Your task to perform on an android device: toggle pop-ups in chrome Image 0: 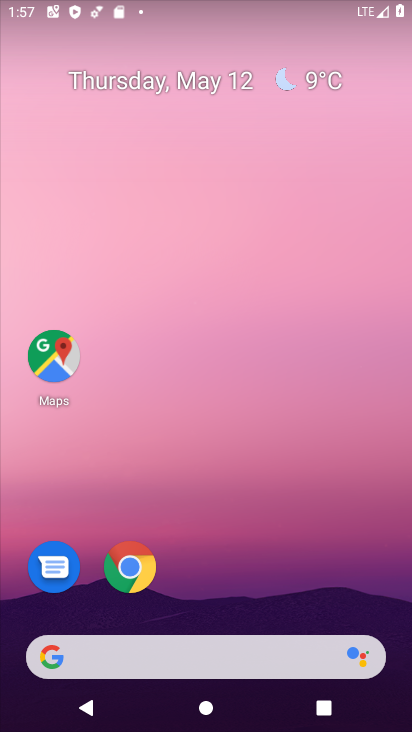
Step 0: click (138, 566)
Your task to perform on an android device: toggle pop-ups in chrome Image 1: 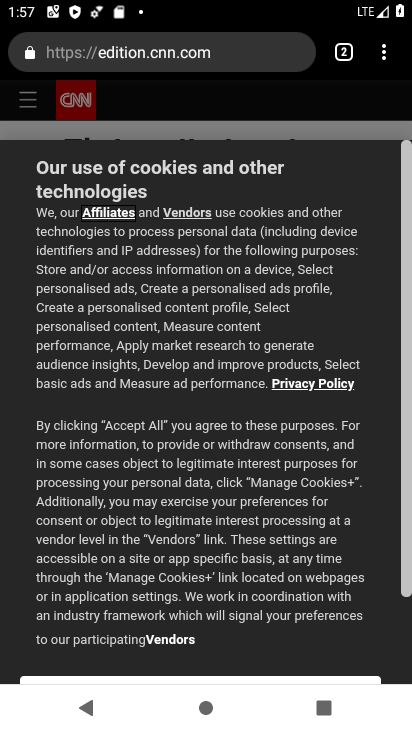
Step 1: click (387, 57)
Your task to perform on an android device: toggle pop-ups in chrome Image 2: 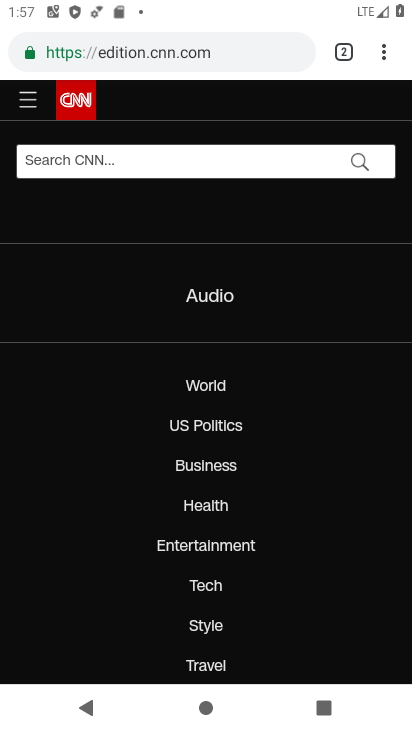
Step 2: click (387, 57)
Your task to perform on an android device: toggle pop-ups in chrome Image 3: 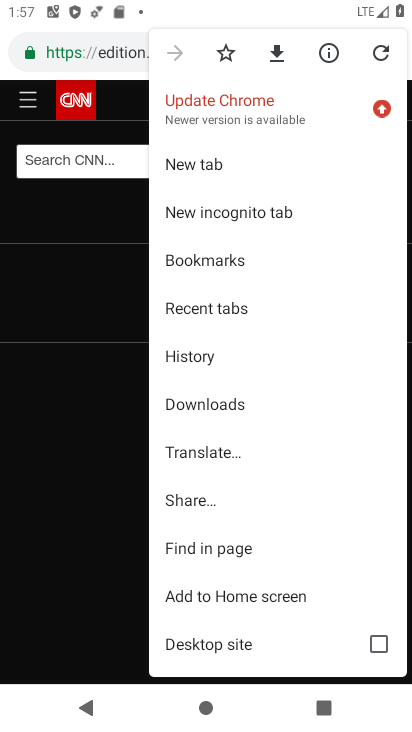
Step 3: drag from (255, 618) to (275, 282)
Your task to perform on an android device: toggle pop-ups in chrome Image 4: 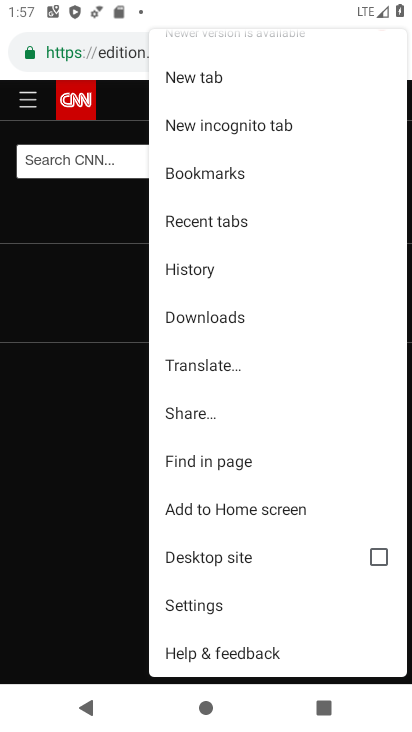
Step 4: drag from (245, 345) to (234, 607)
Your task to perform on an android device: toggle pop-ups in chrome Image 5: 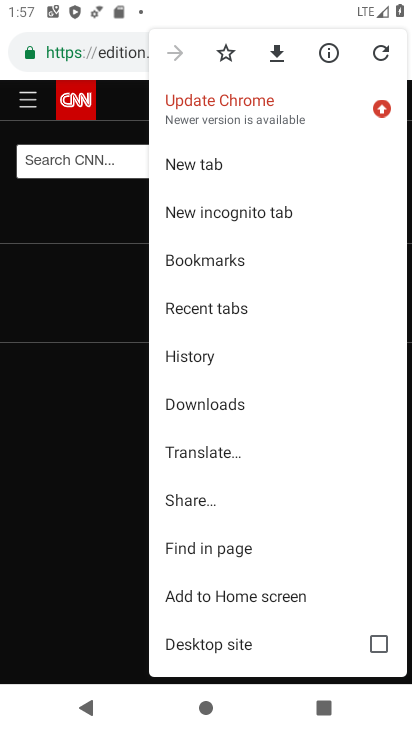
Step 5: drag from (225, 615) to (265, 246)
Your task to perform on an android device: toggle pop-ups in chrome Image 6: 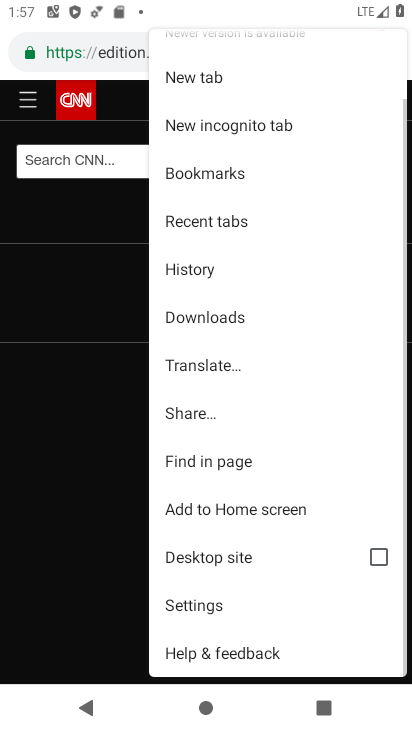
Step 6: click (208, 596)
Your task to perform on an android device: toggle pop-ups in chrome Image 7: 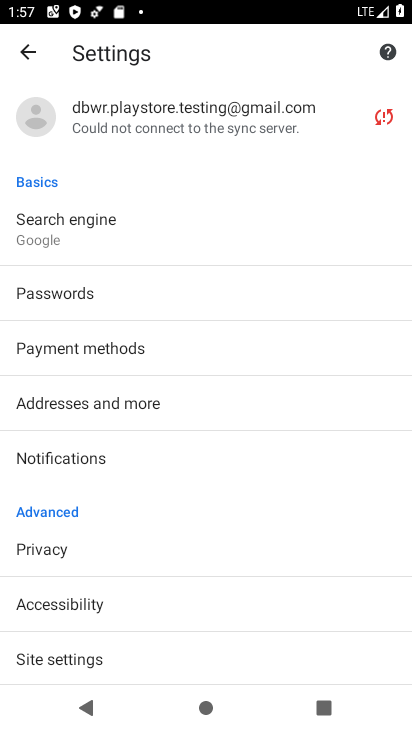
Step 7: drag from (87, 639) to (178, 243)
Your task to perform on an android device: toggle pop-ups in chrome Image 8: 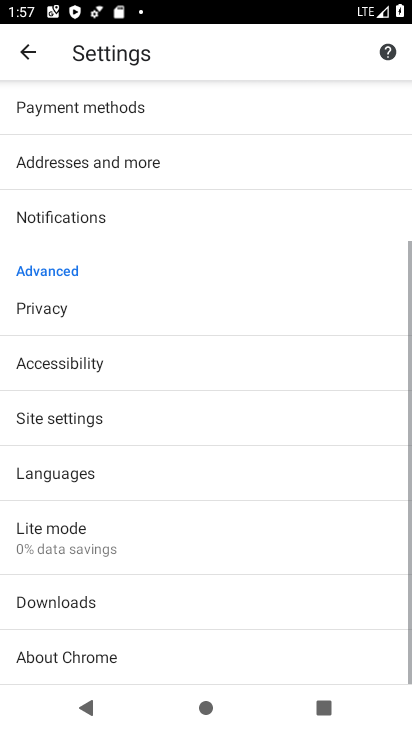
Step 8: click (62, 423)
Your task to perform on an android device: toggle pop-ups in chrome Image 9: 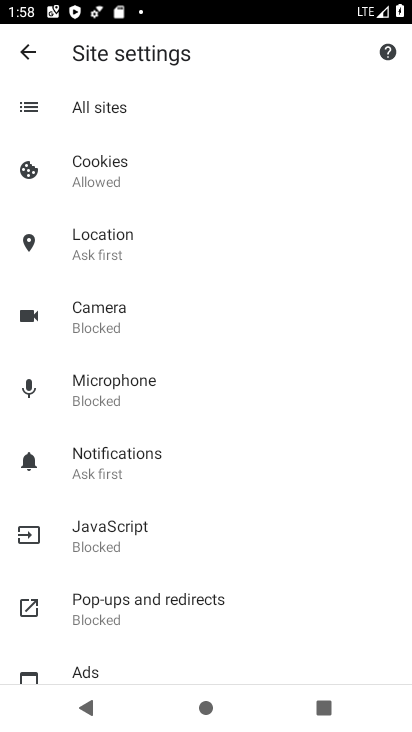
Step 9: click (116, 592)
Your task to perform on an android device: toggle pop-ups in chrome Image 10: 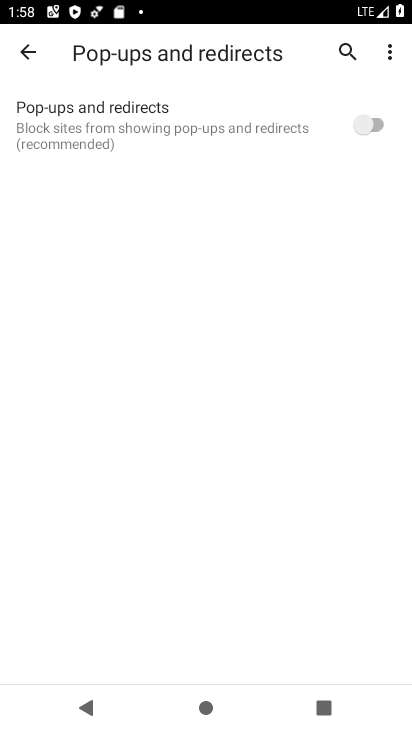
Step 10: click (381, 127)
Your task to perform on an android device: toggle pop-ups in chrome Image 11: 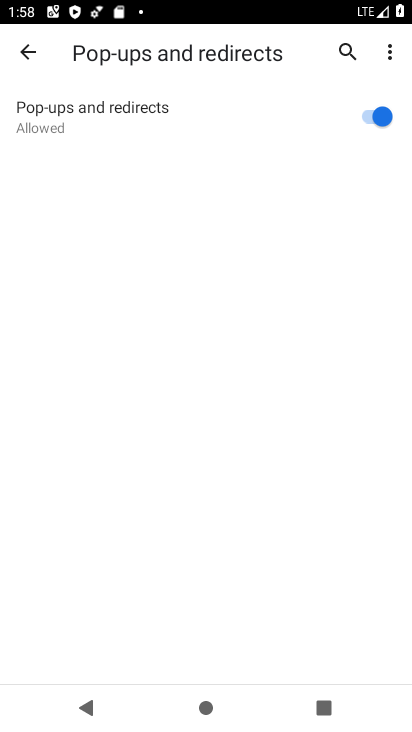
Step 11: task complete